Your task to perform on an android device: Check the news Image 0: 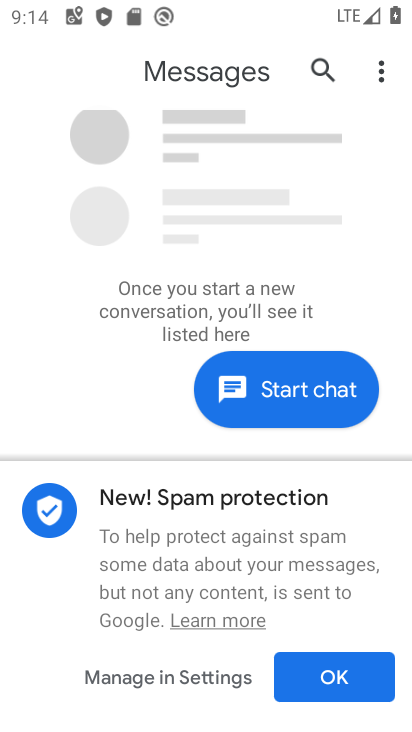
Step 0: press home button
Your task to perform on an android device: Check the news Image 1: 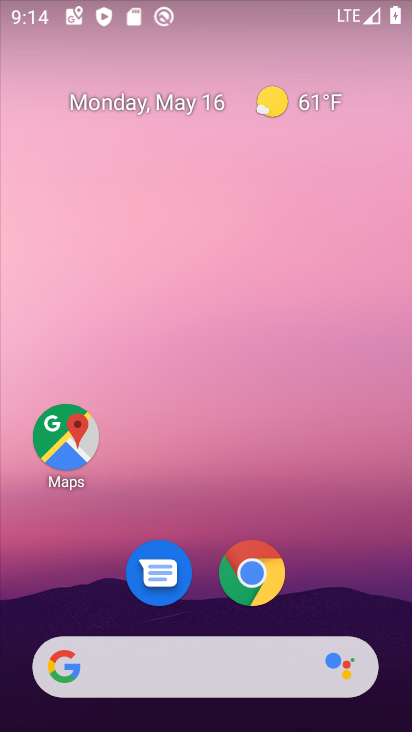
Step 1: task complete